Your task to perform on an android device: turn on sleep mode Image 0: 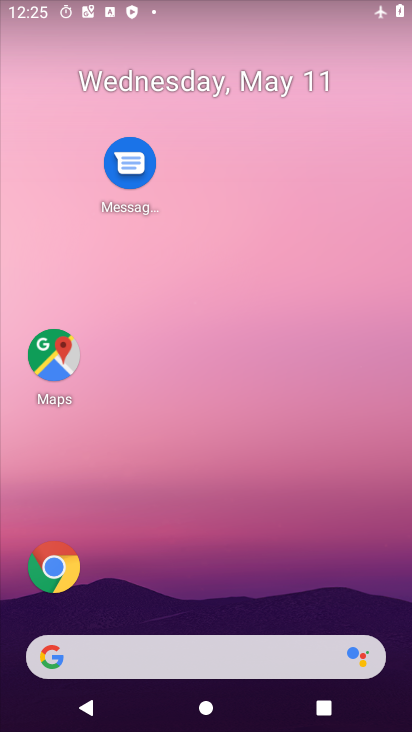
Step 0: task impossible